Your task to perform on an android device: turn off priority inbox in the gmail app Image 0: 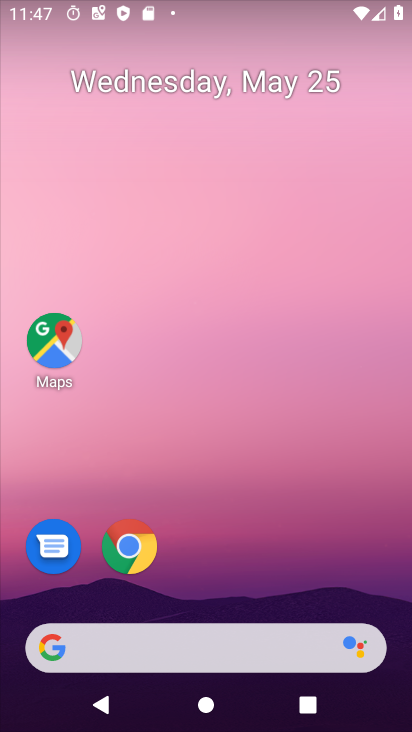
Step 0: drag from (233, 580) to (239, 51)
Your task to perform on an android device: turn off priority inbox in the gmail app Image 1: 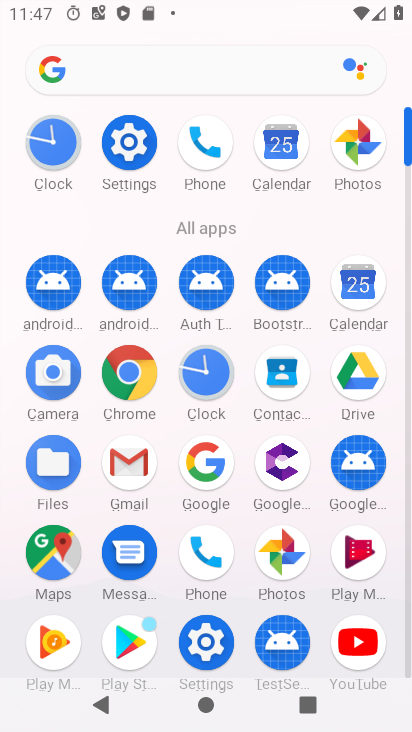
Step 1: click (130, 469)
Your task to perform on an android device: turn off priority inbox in the gmail app Image 2: 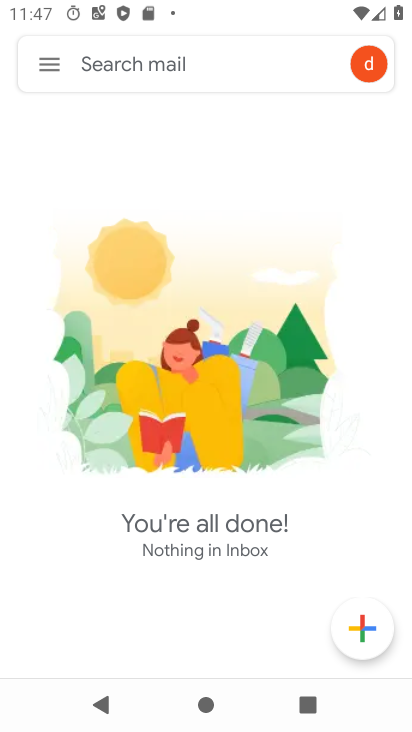
Step 2: click (49, 66)
Your task to perform on an android device: turn off priority inbox in the gmail app Image 3: 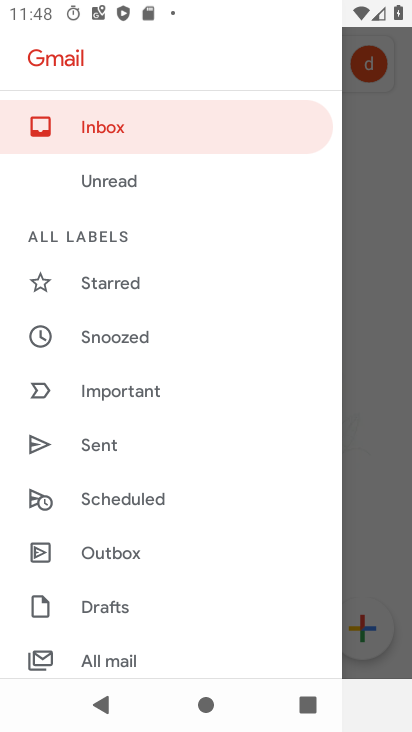
Step 3: drag from (164, 625) to (187, 292)
Your task to perform on an android device: turn off priority inbox in the gmail app Image 4: 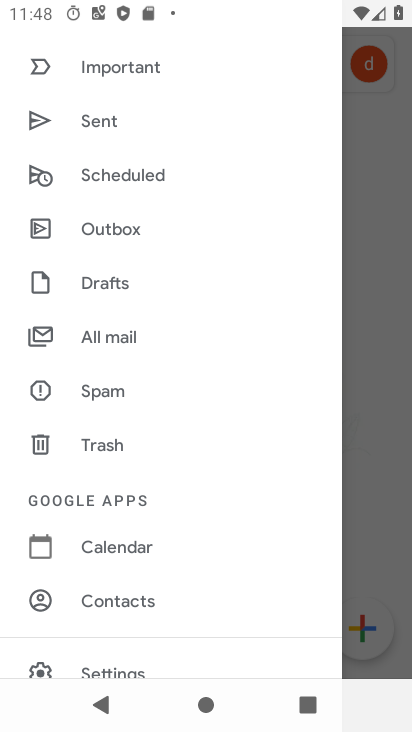
Step 4: click (106, 664)
Your task to perform on an android device: turn off priority inbox in the gmail app Image 5: 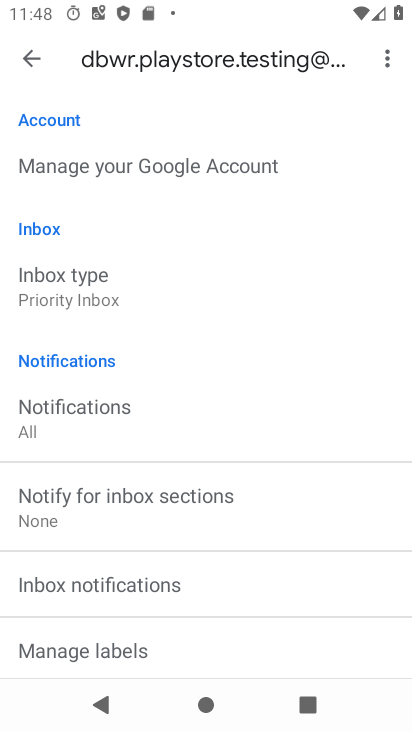
Step 5: drag from (158, 639) to (207, 191)
Your task to perform on an android device: turn off priority inbox in the gmail app Image 6: 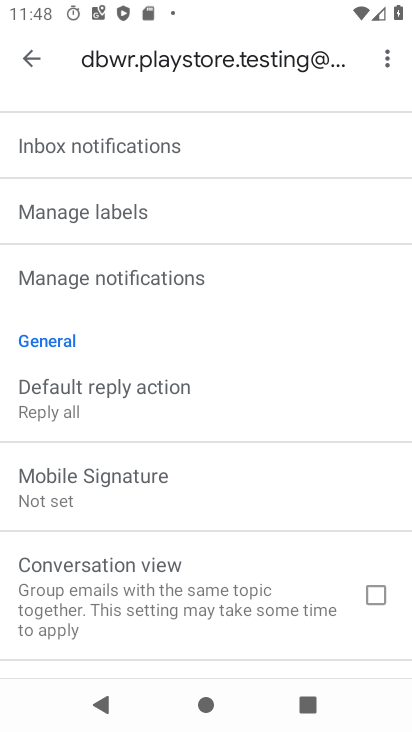
Step 6: drag from (154, 188) to (187, 626)
Your task to perform on an android device: turn off priority inbox in the gmail app Image 7: 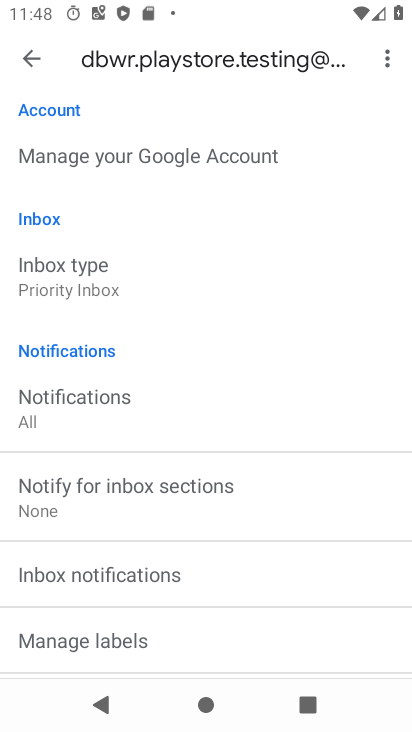
Step 7: click (65, 284)
Your task to perform on an android device: turn off priority inbox in the gmail app Image 8: 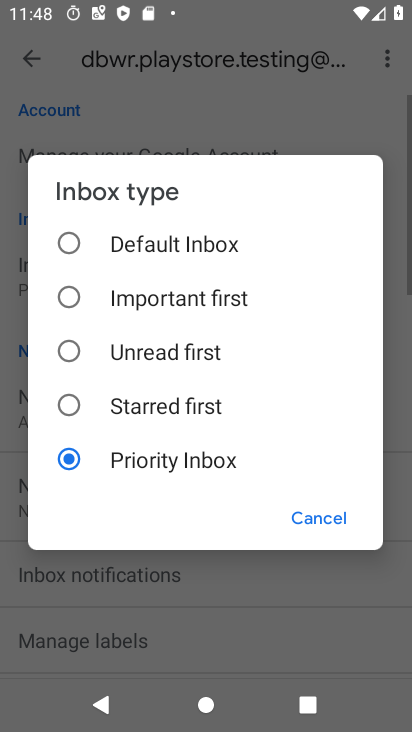
Step 8: click (82, 263)
Your task to perform on an android device: turn off priority inbox in the gmail app Image 9: 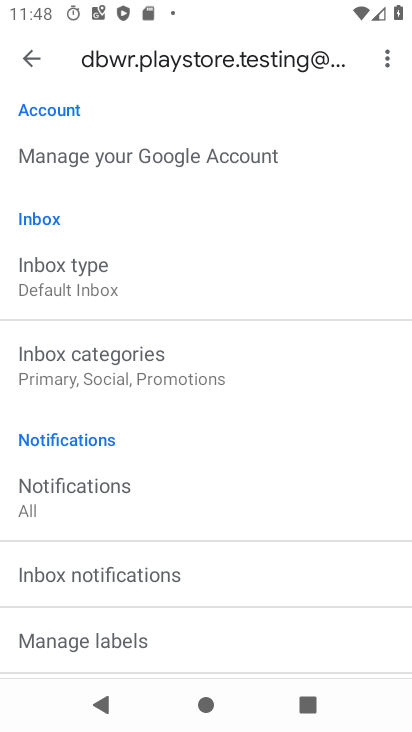
Step 9: task complete